Your task to perform on an android device: Go to Reddit.com Image 0: 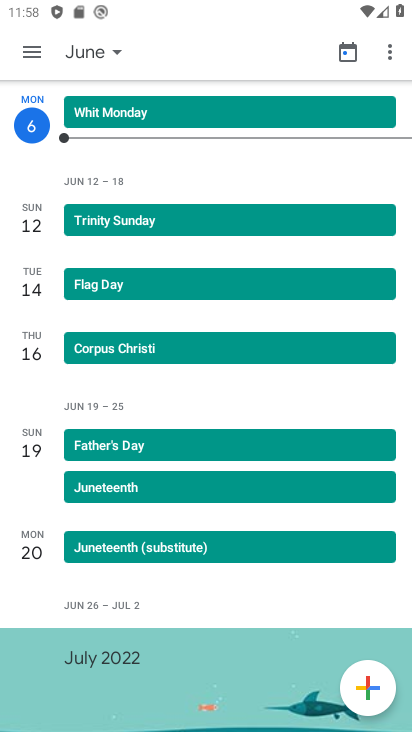
Step 0: press home button
Your task to perform on an android device: Go to Reddit.com Image 1: 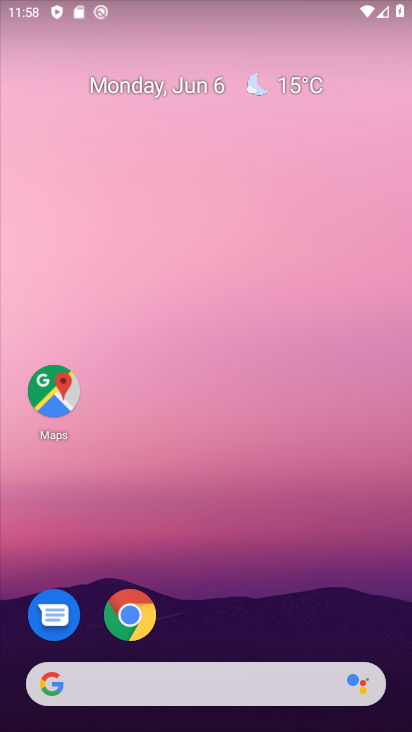
Step 1: click (140, 606)
Your task to perform on an android device: Go to Reddit.com Image 2: 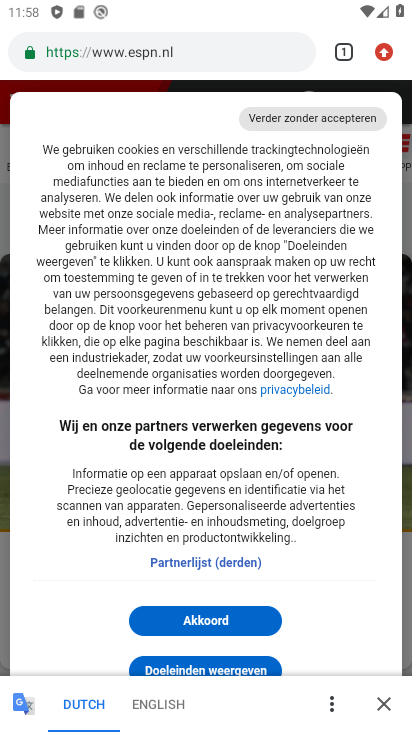
Step 2: press back button
Your task to perform on an android device: Go to Reddit.com Image 3: 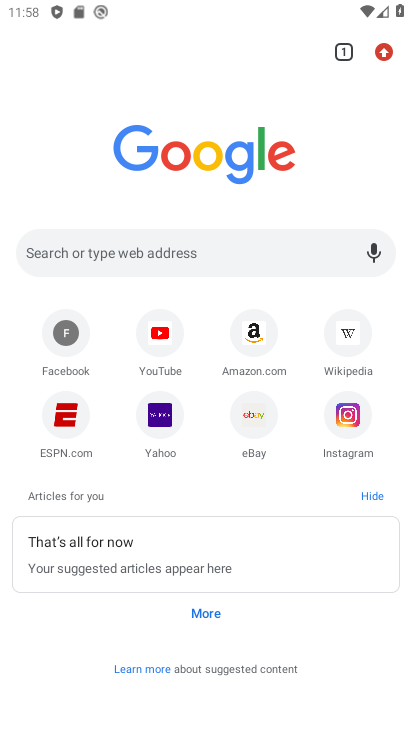
Step 3: click (194, 252)
Your task to perform on an android device: Go to Reddit.com Image 4: 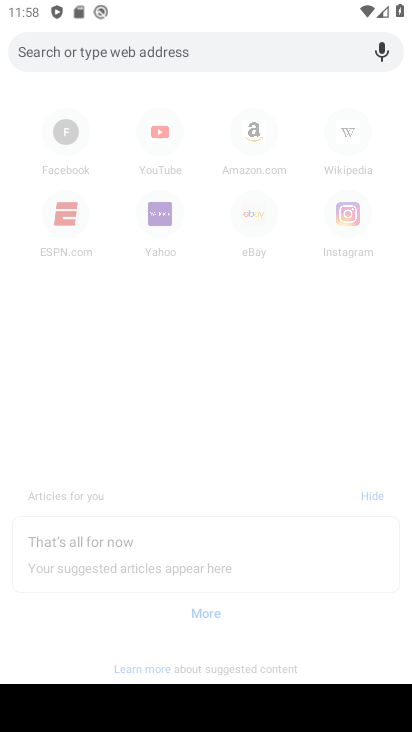
Step 4: type "www.reddit.com"
Your task to perform on an android device: Go to Reddit.com Image 5: 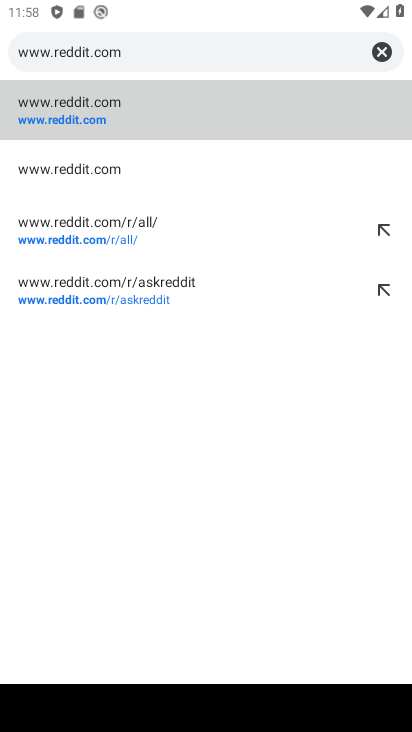
Step 5: click (46, 130)
Your task to perform on an android device: Go to Reddit.com Image 6: 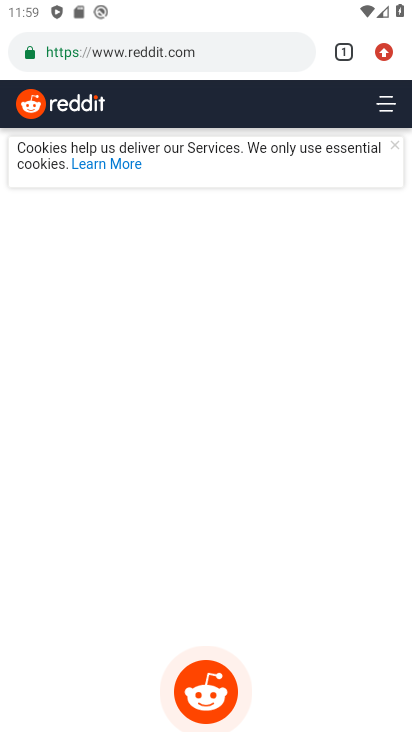
Step 6: task complete